Your task to perform on an android device: Open sound settings Image 0: 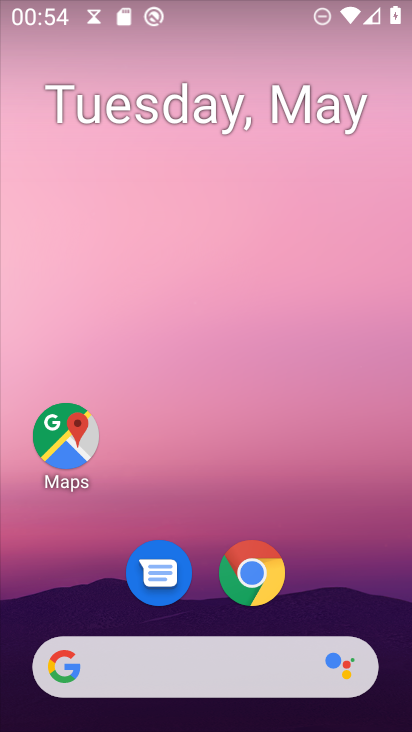
Step 0: drag from (316, 464) to (203, 64)
Your task to perform on an android device: Open sound settings Image 1: 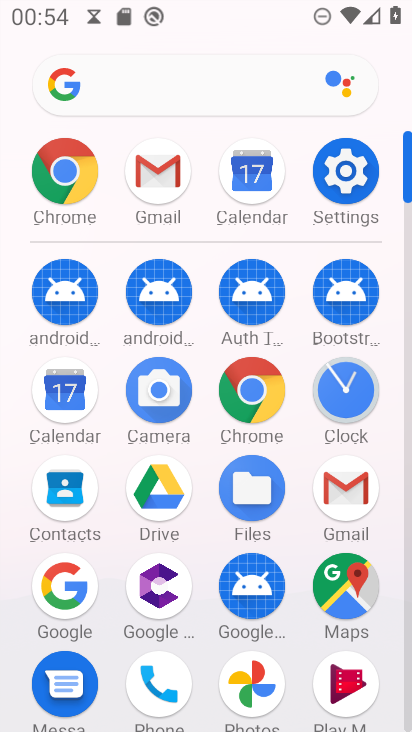
Step 1: click (351, 202)
Your task to perform on an android device: Open sound settings Image 2: 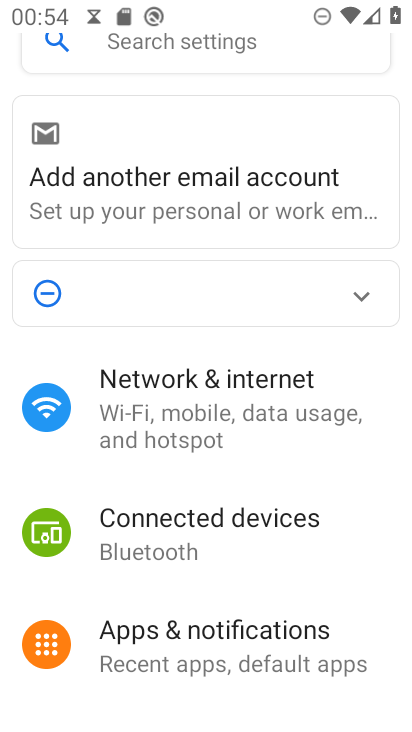
Step 2: drag from (233, 494) to (190, 179)
Your task to perform on an android device: Open sound settings Image 3: 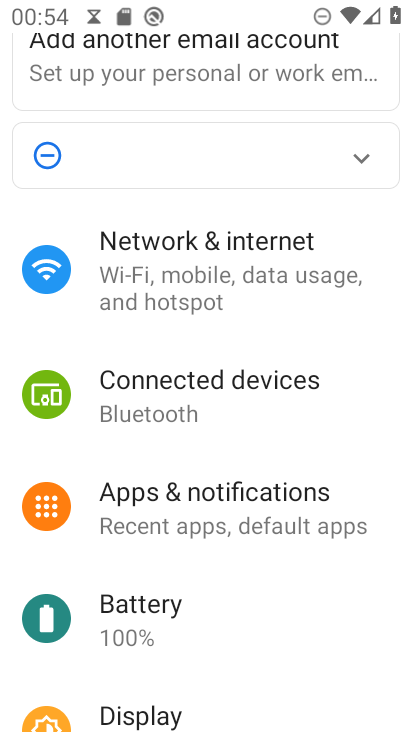
Step 3: drag from (248, 567) to (219, 173)
Your task to perform on an android device: Open sound settings Image 4: 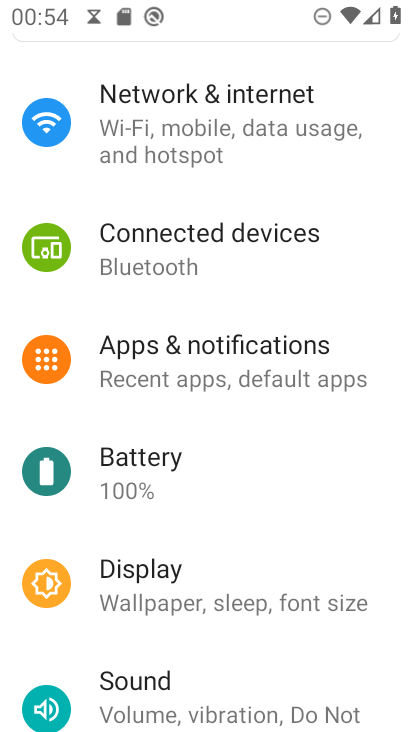
Step 4: drag from (185, 627) to (201, 272)
Your task to perform on an android device: Open sound settings Image 5: 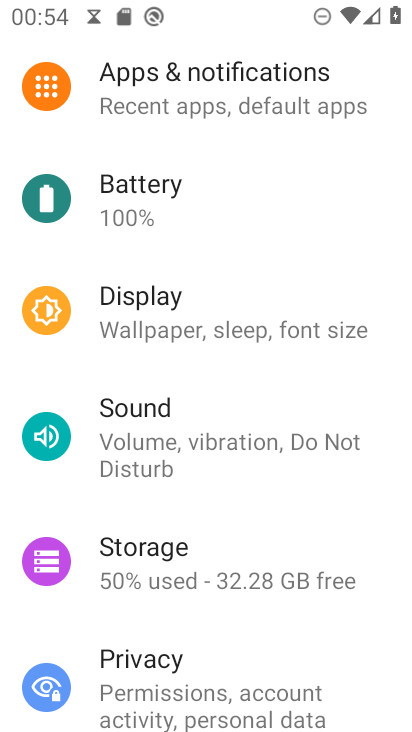
Step 5: click (223, 415)
Your task to perform on an android device: Open sound settings Image 6: 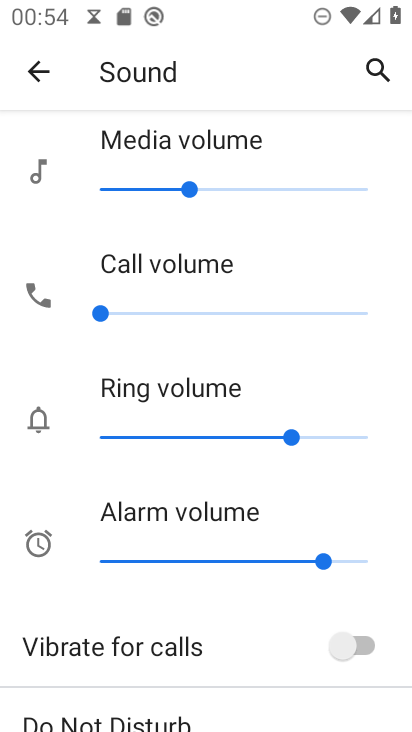
Step 6: task complete